Your task to perform on an android device: Go to Wikipedia Image 0: 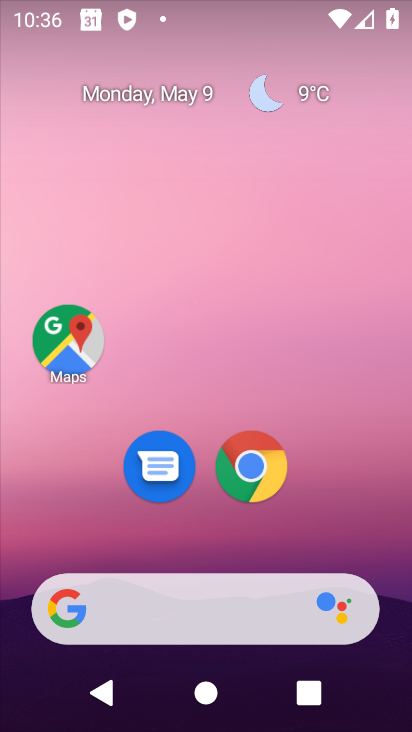
Step 0: click (251, 479)
Your task to perform on an android device: Go to Wikipedia Image 1: 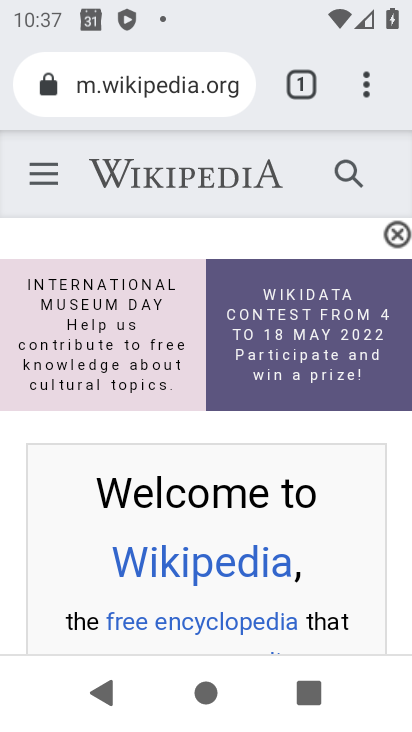
Step 1: task complete